Your task to perform on an android device: open app "PUBG MOBILE" (install if not already installed) Image 0: 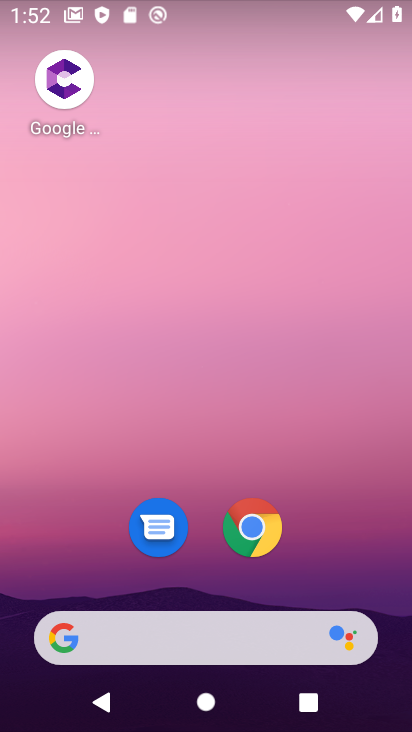
Step 0: drag from (196, 643) to (45, 0)
Your task to perform on an android device: open app "PUBG MOBILE" (install if not already installed) Image 1: 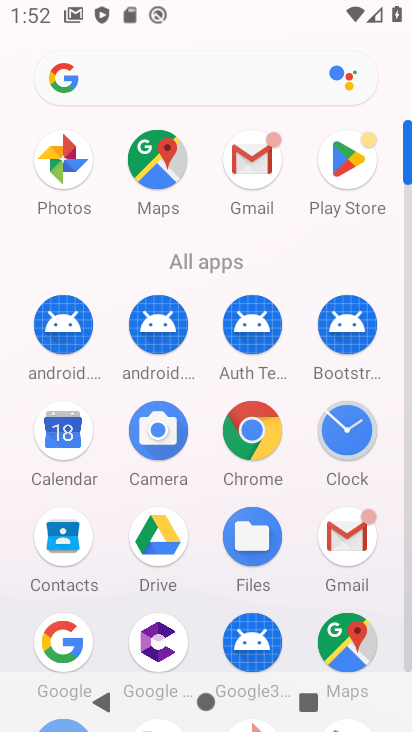
Step 1: click (365, 168)
Your task to perform on an android device: open app "PUBG MOBILE" (install if not already installed) Image 2: 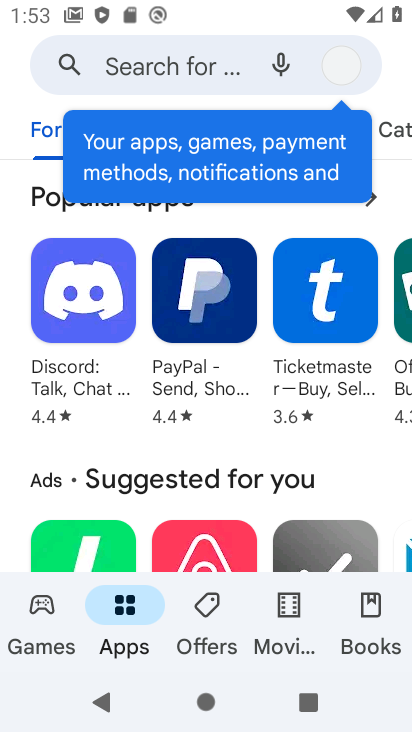
Step 2: click (168, 52)
Your task to perform on an android device: open app "PUBG MOBILE" (install if not already installed) Image 3: 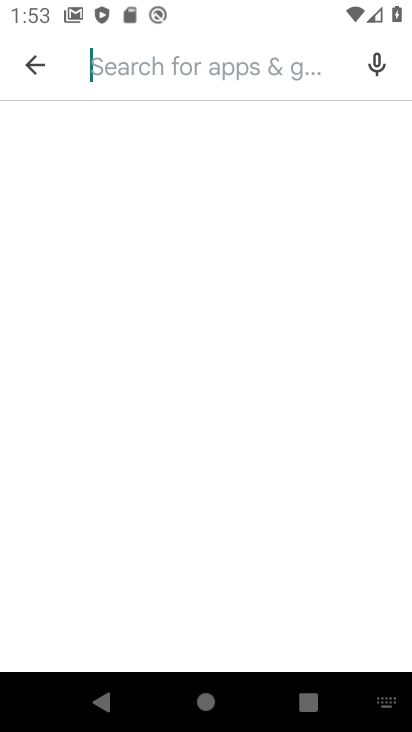
Step 3: type "pubg mobile"
Your task to perform on an android device: open app "PUBG MOBILE" (install if not already installed) Image 4: 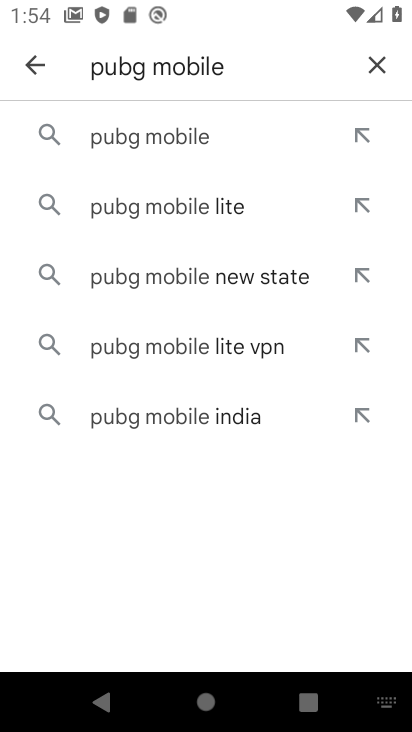
Step 4: click (127, 128)
Your task to perform on an android device: open app "PUBG MOBILE" (install if not already installed) Image 5: 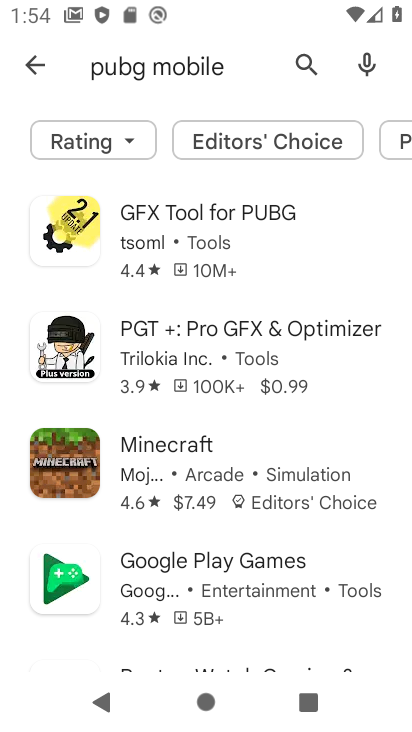
Step 5: task complete